Your task to perform on an android device: Open location settings Image 0: 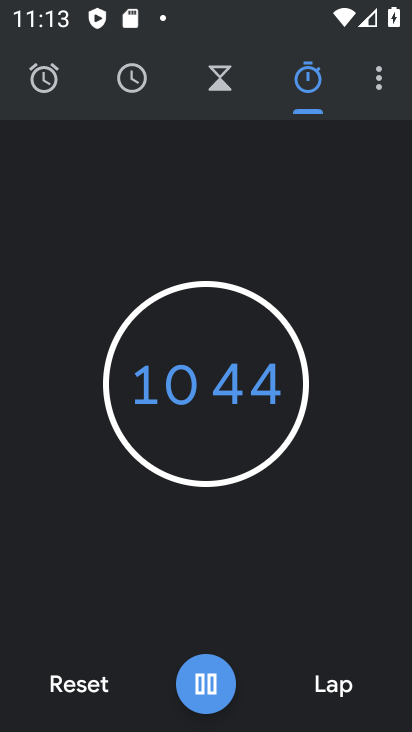
Step 0: press home button
Your task to perform on an android device: Open location settings Image 1: 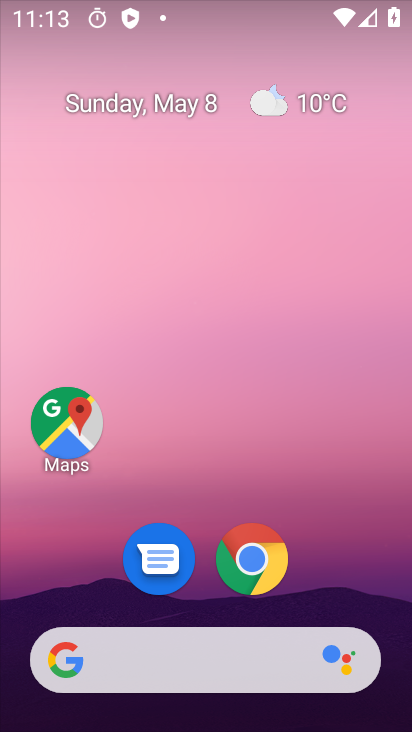
Step 1: drag from (220, 601) to (221, 235)
Your task to perform on an android device: Open location settings Image 2: 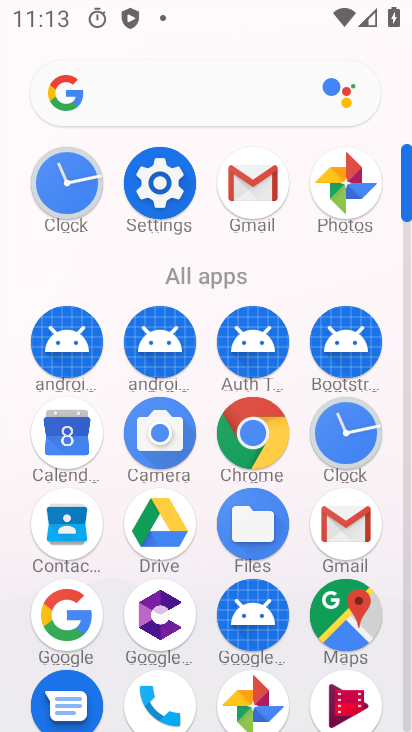
Step 2: click (167, 174)
Your task to perform on an android device: Open location settings Image 3: 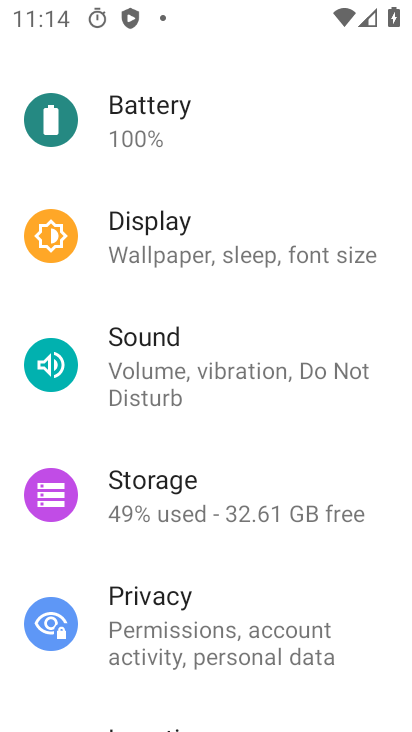
Step 3: drag from (173, 697) to (181, 471)
Your task to perform on an android device: Open location settings Image 4: 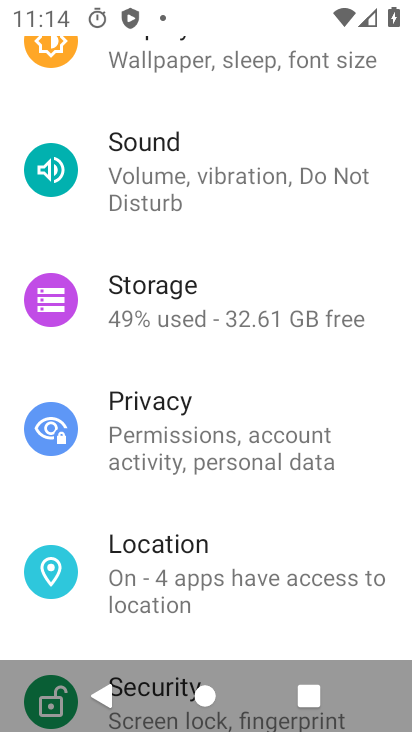
Step 4: click (159, 584)
Your task to perform on an android device: Open location settings Image 5: 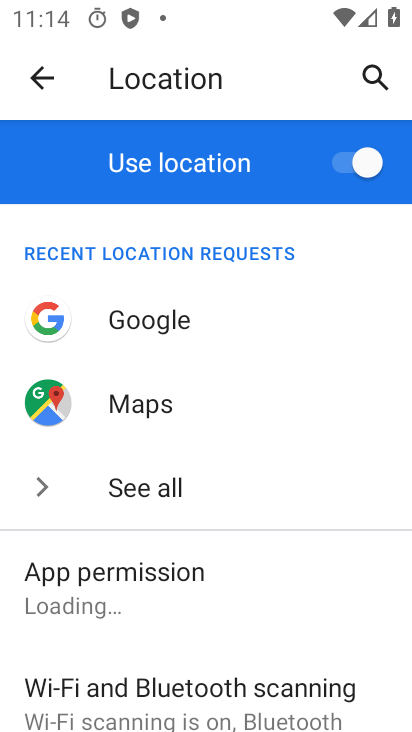
Step 5: task complete